Your task to perform on an android device: Go to location settings Image 0: 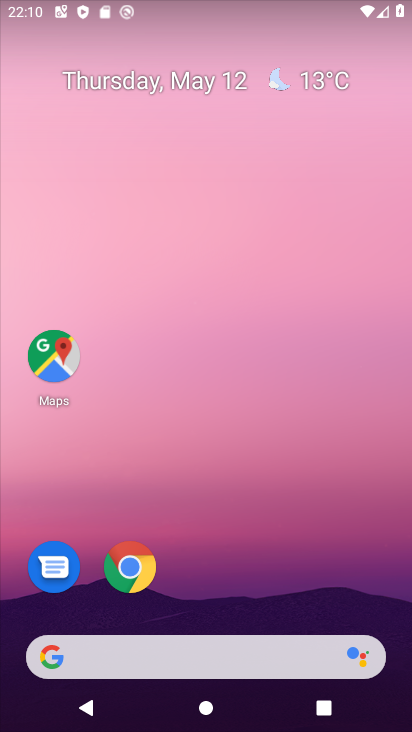
Step 0: drag from (221, 585) to (197, 83)
Your task to perform on an android device: Go to location settings Image 1: 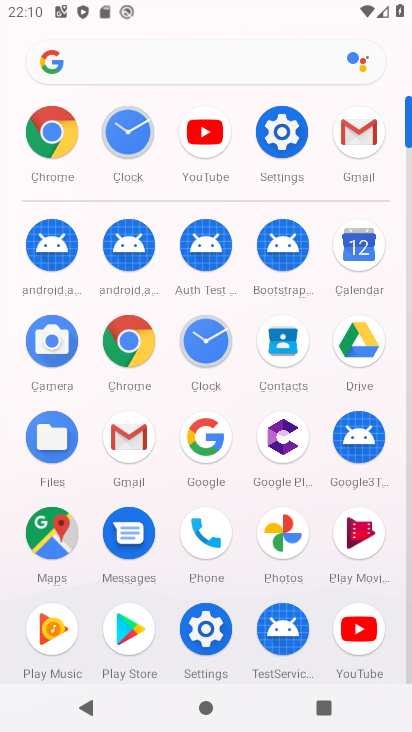
Step 1: click (279, 132)
Your task to perform on an android device: Go to location settings Image 2: 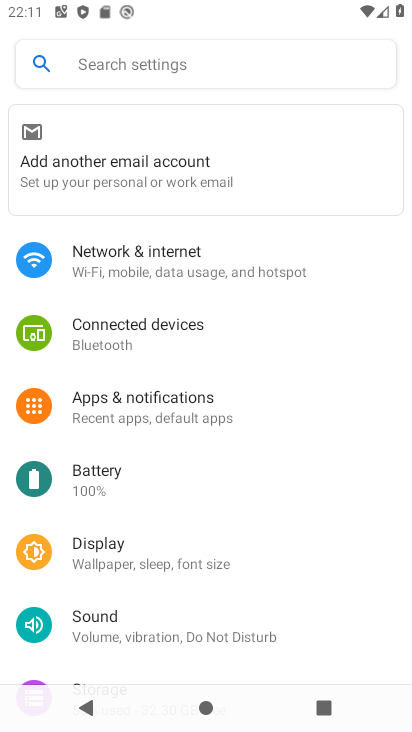
Step 2: drag from (174, 608) to (179, 204)
Your task to perform on an android device: Go to location settings Image 3: 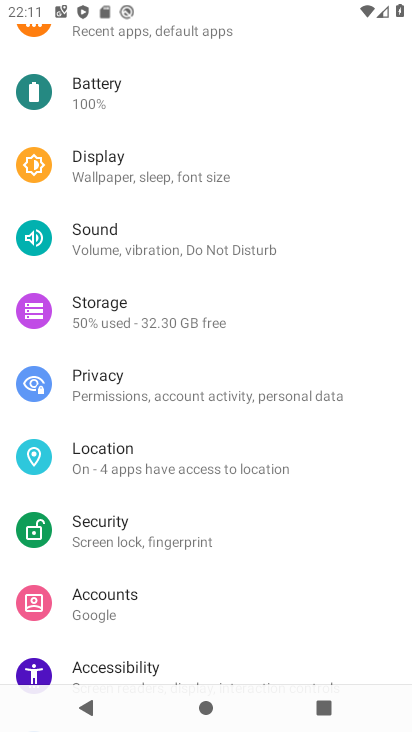
Step 3: click (148, 454)
Your task to perform on an android device: Go to location settings Image 4: 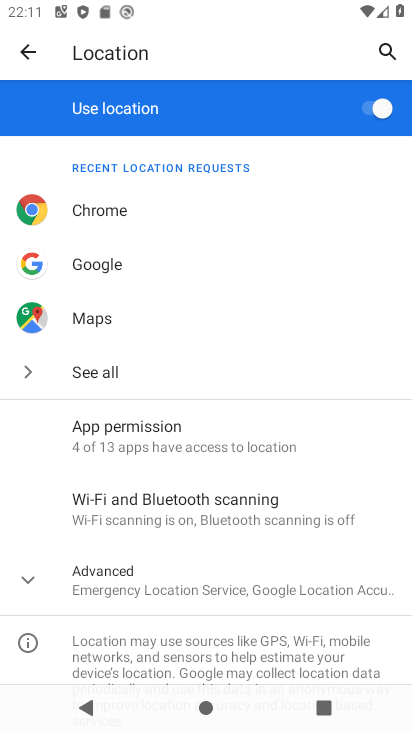
Step 4: click (22, 580)
Your task to perform on an android device: Go to location settings Image 5: 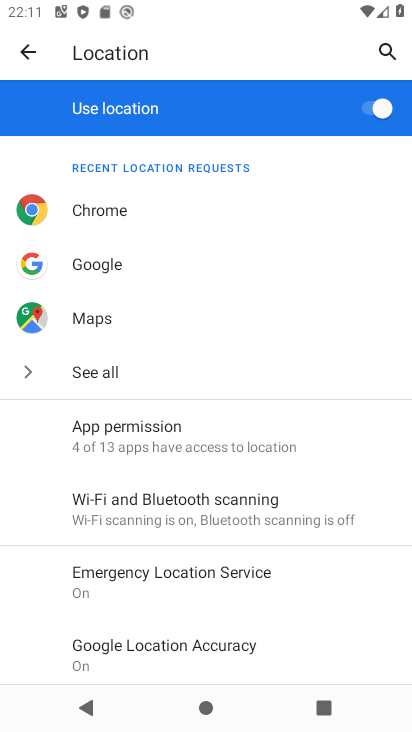
Step 5: task complete